Your task to perform on an android device: check the backup settings in the google photos Image 0: 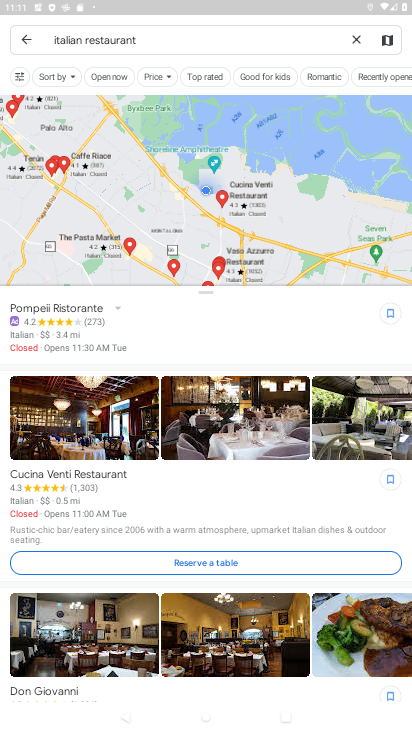
Step 0: click (29, 34)
Your task to perform on an android device: check the backup settings in the google photos Image 1: 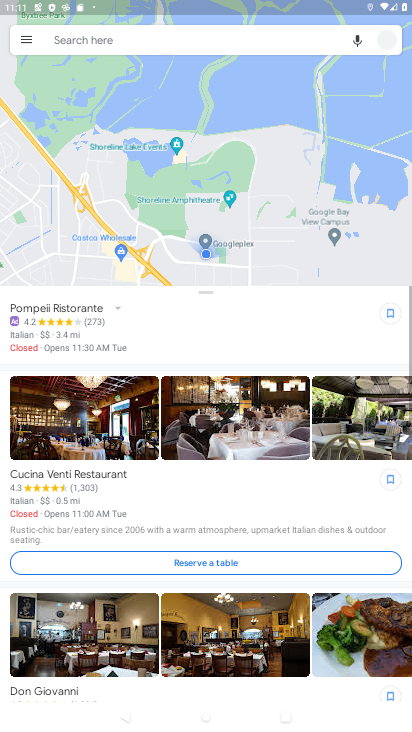
Step 1: press home button
Your task to perform on an android device: check the backup settings in the google photos Image 2: 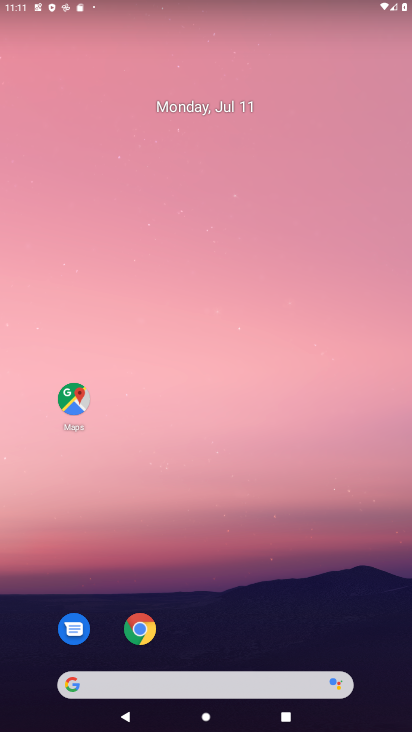
Step 2: drag from (295, 590) to (253, 11)
Your task to perform on an android device: check the backup settings in the google photos Image 3: 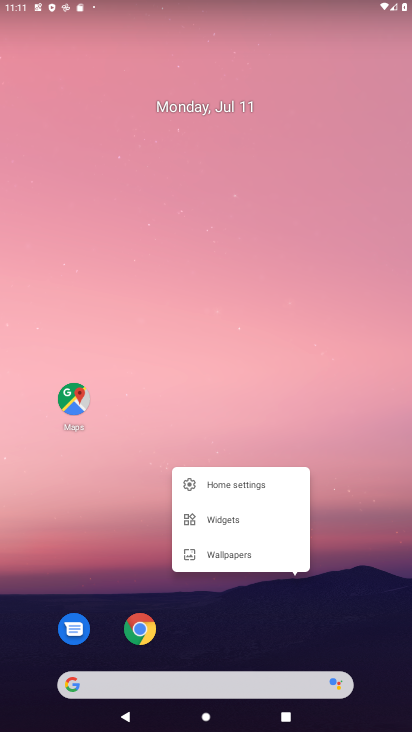
Step 3: click (198, 314)
Your task to perform on an android device: check the backup settings in the google photos Image 4: 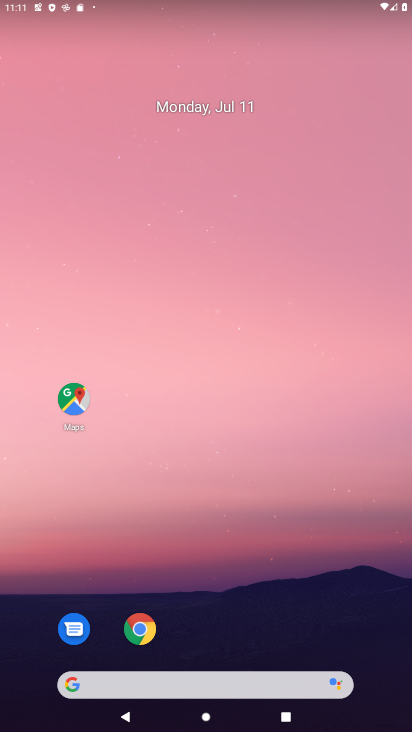
Step 4: drag from (256, 607) to (243, 137)
Your task to perform on an android device: check the backup settings in the google photos Image 5: 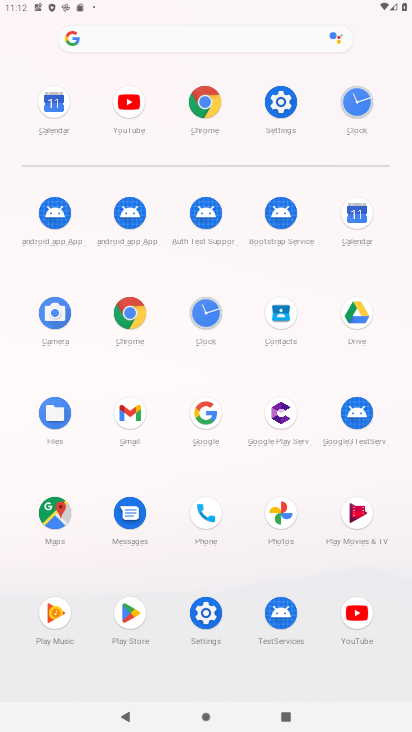
Step 5: click (289, 510)
Your task to perform on an android device: check the backup settings in the google photos Image 6: 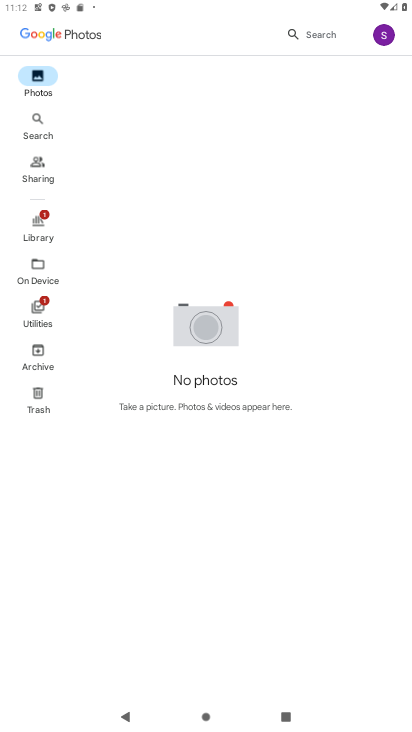
Step 6: click (376, 31)
Your task to perform on an android device: check the backup settings in the google photos Image 7: 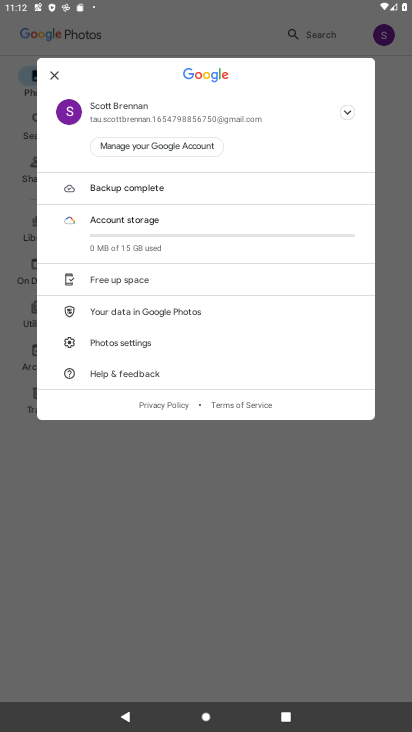
Step 7: click (218, 186)
Your task to perform on an android device: check the backup settings in the google photos Image 8: 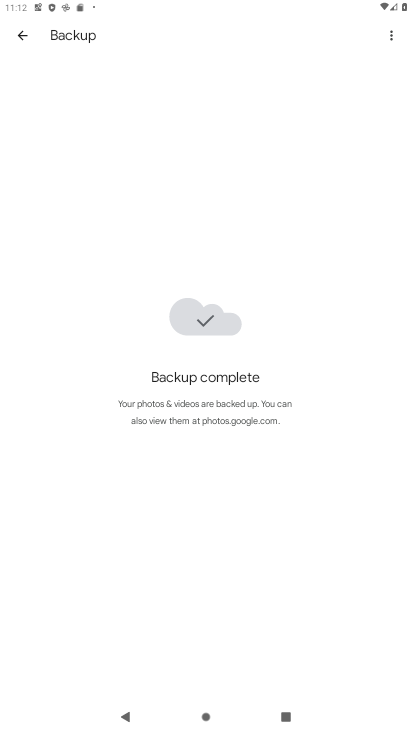
Step 8: task complete